Your task to perform on an android device: turn off data saver in the chrome app Image 0: 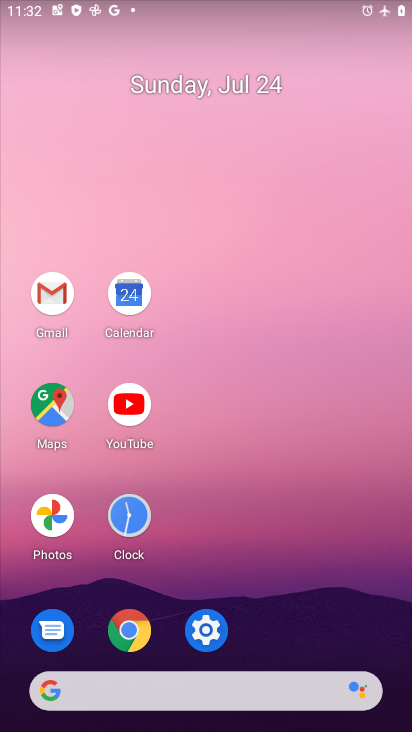
Step 0: click (129, 626)
Your task to perform on an android device: turn off data saver in the chrome app Image 1: 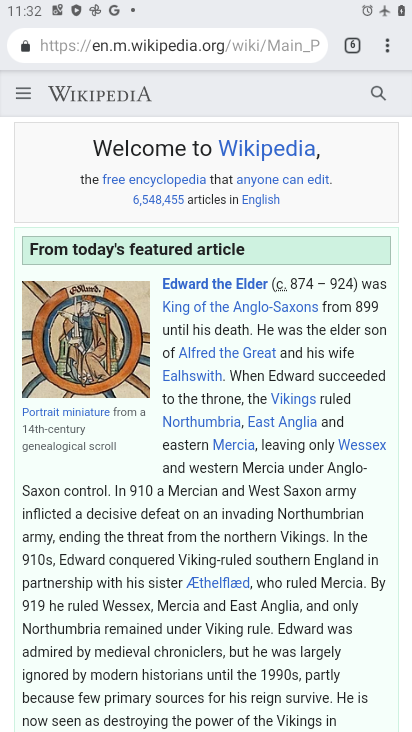
Step 1: click (385, 43)
Your task to perform on an android device: turn off data saver in the chrome app Image 2: 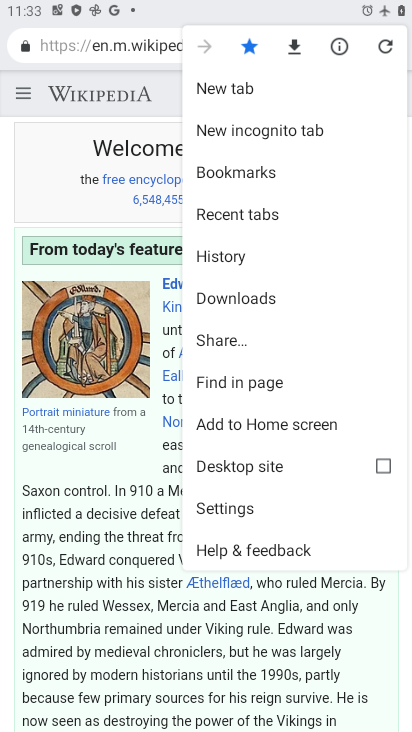
Step 2: click (224, 505)
Your task to perform on an android device: turn off data saver in the chrome app Image 3: 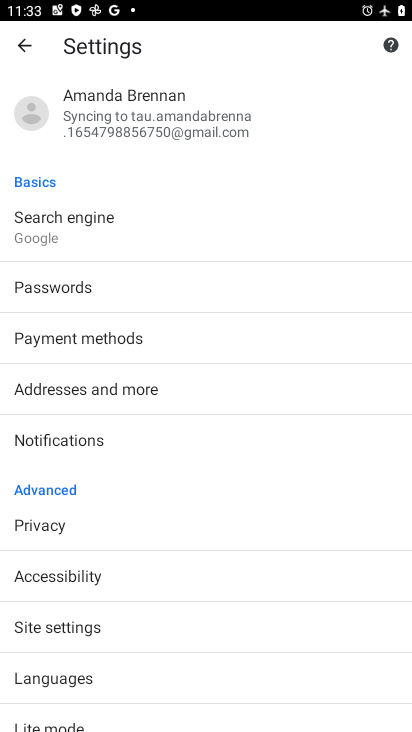
Step 3: click (60, 720)
Your task to perform on an android device: turn off data saver in the chrome app Image 4: 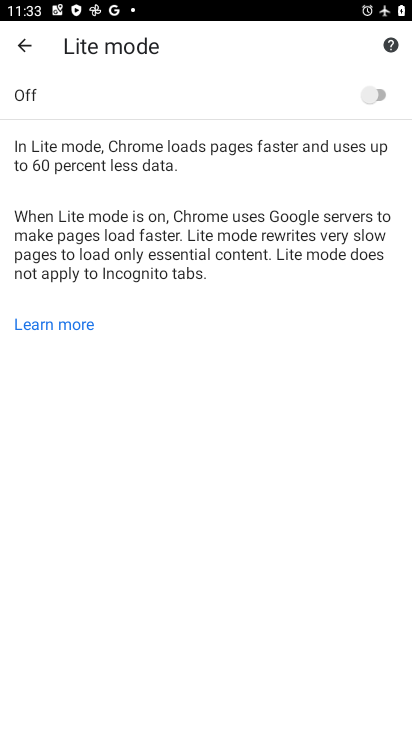
Step 4: task complete